Your task to perform on an android device: Go to Amazon Image 0: 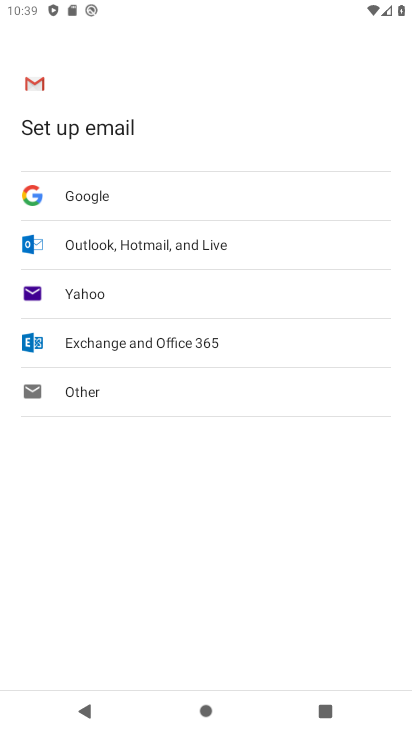
Step 0: press home button
Your task to perform on an android device: Go to Amazon Image 1: 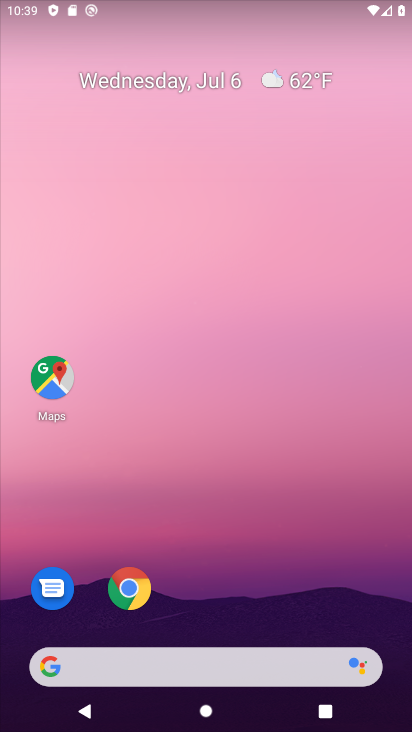
Step 1: click (132, 590)
Your task to perform on an android device: Go to Amazon Image 2: 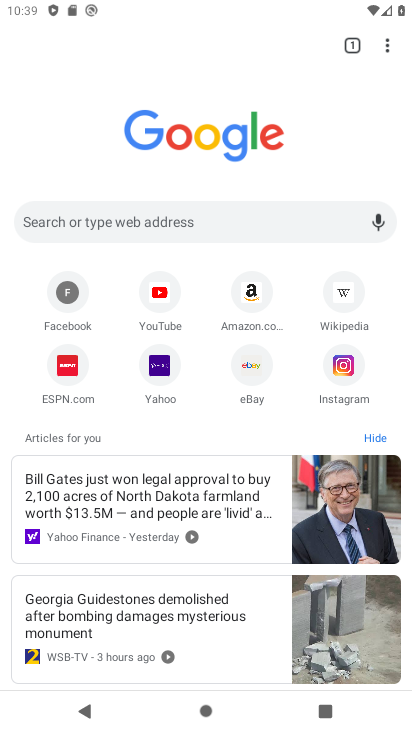
Step 2: click (253, 291)
Your task to perform on an android device: Go to Amazon Image 3: 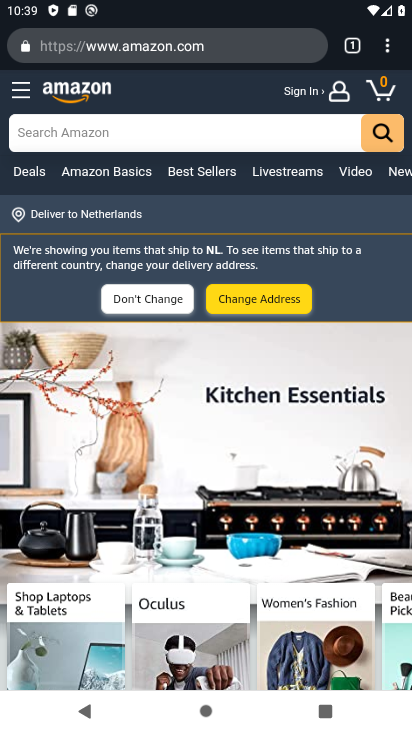
Step 3: task complete